Your task to perform on an android device: Is it going to rain today? Image 0: 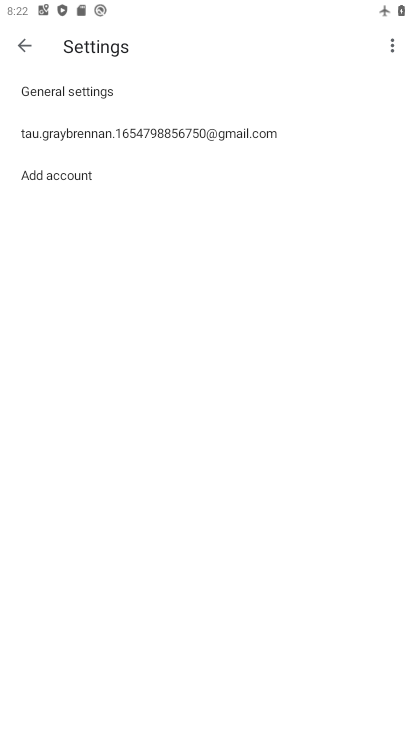
Step 0: press home button
Your task to perform on an android device: Is it going to rain today? Image 1: 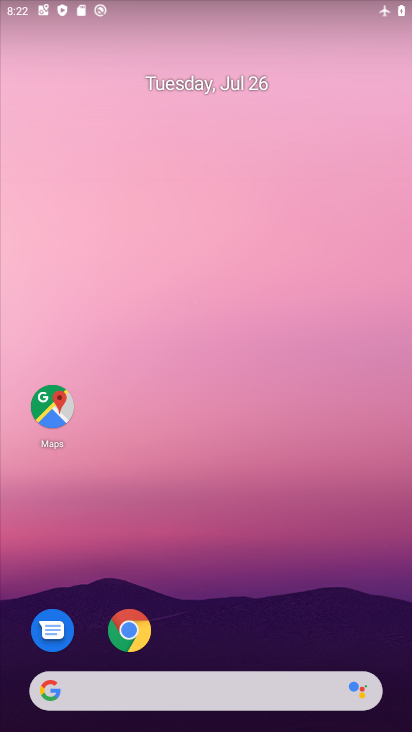
Step 1: click (250, 700)
Your task to perform on an android device: Is it going to rain today? Image 2: 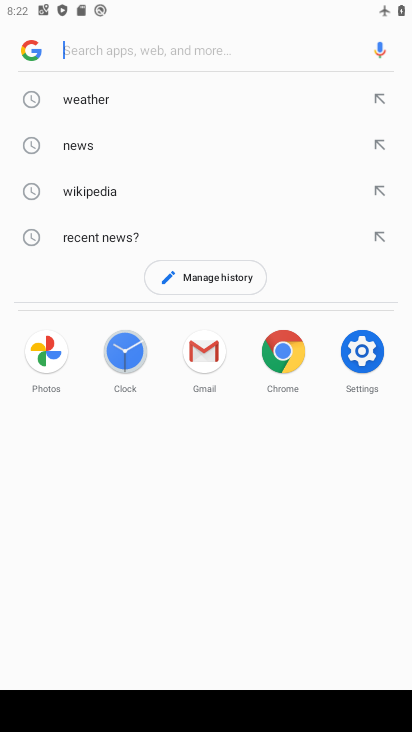
Step 2: click (93, 107)
Your task to perform on an android device: Is it going to rain today? Image 3: 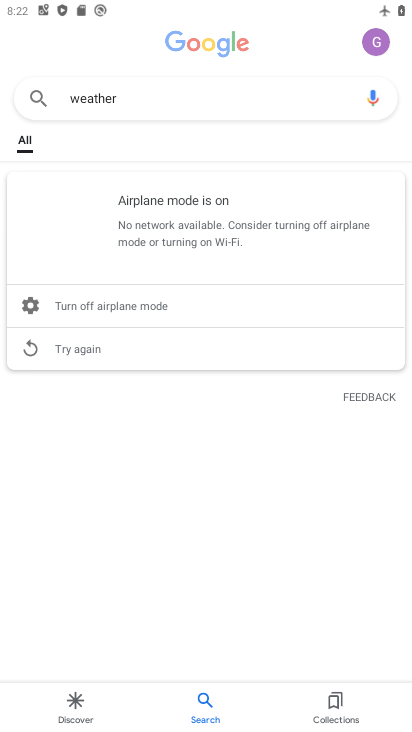
Step 3: task complete